Your task to perform on an android device: turn on bluetooth scan Image 0: 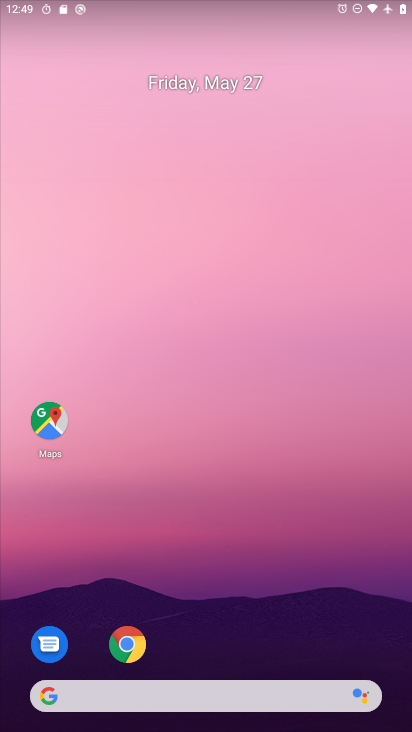
Step 0: drag from (216, 423) to (207, 245)
Your task to perform on an android device: turn on bluetooth scan Image 1: 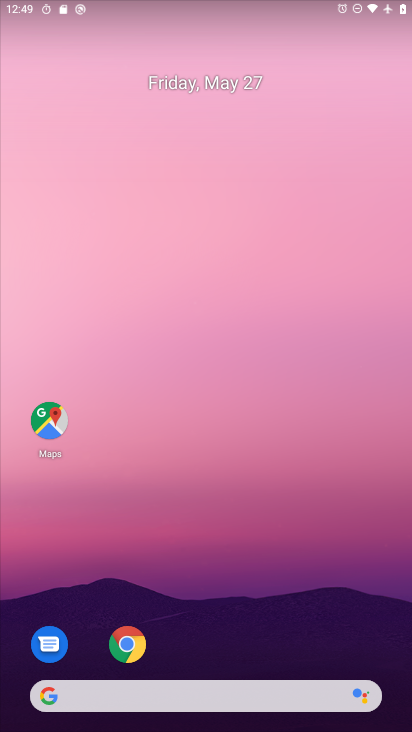
Step 1: drag from (227, 660) to (210, 81)
Your task to perform on an android device: turn on bluetooth scan Image 2: 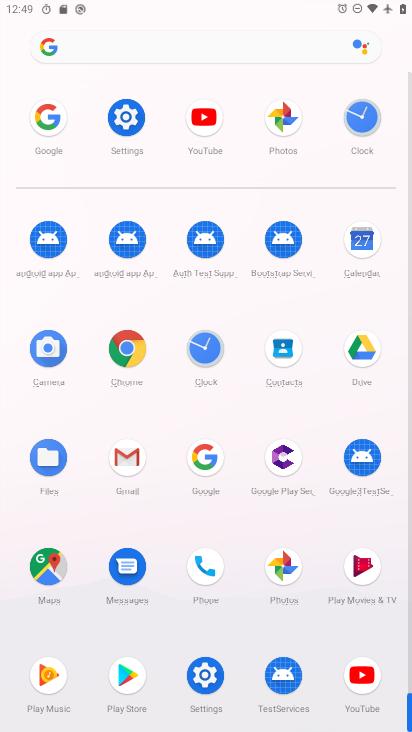
Step 2: click (131, 116)
Your task to perform on an android device: turn on bluetooth scan Image 3: 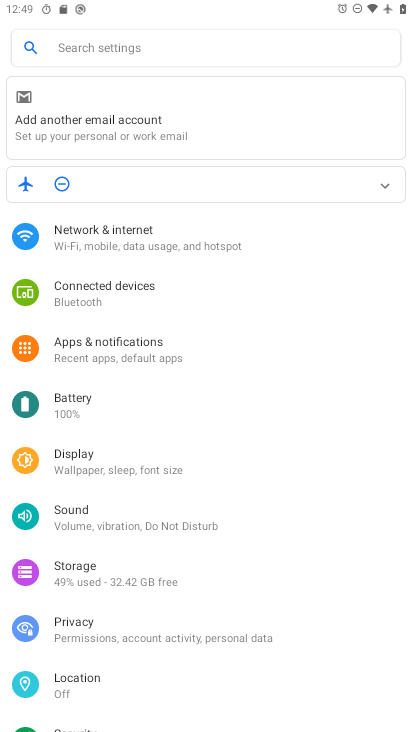
Step 3: click (156, 674)
Your task to perform on an android device: turn on bluetooth scan Image 4: 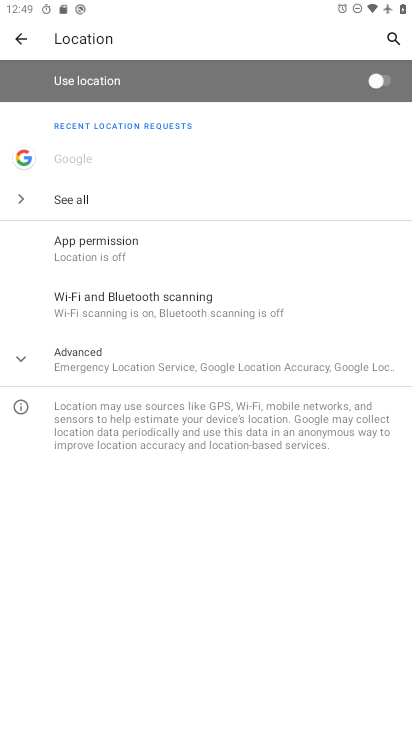
Step 4: click (189, 367)
Your task to perform on an android device: turn on bluetooth scan Image 5: 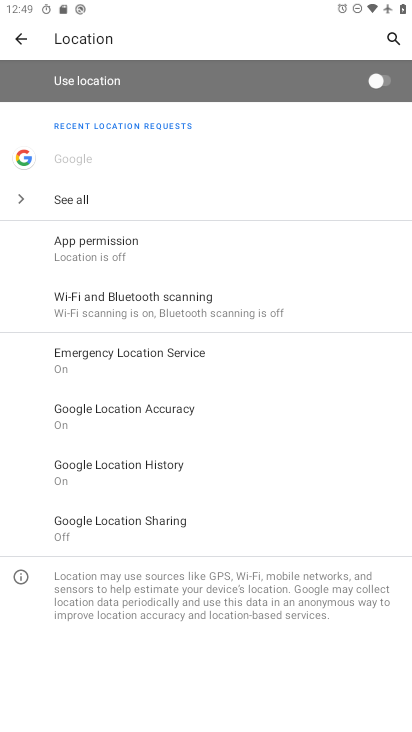
Step 5: click (212, 285)
Your task to perform on an android device: turn on bluetooth scan Image 6: 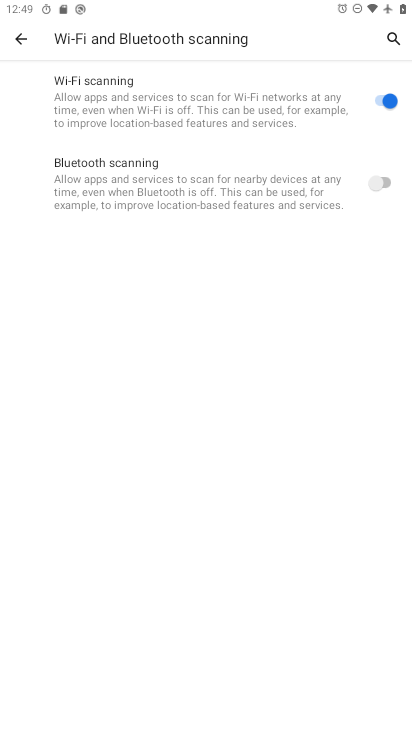
Step 6: click (384, 182)
Your task to perform on an android device: turn on bluetooth scan Image 7: 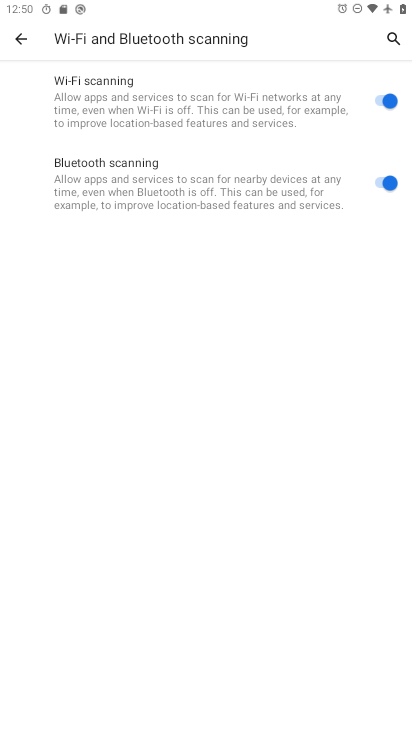
Step 7: task complete